Your task to perform on an android device: Turn off the flashlight Image 0: 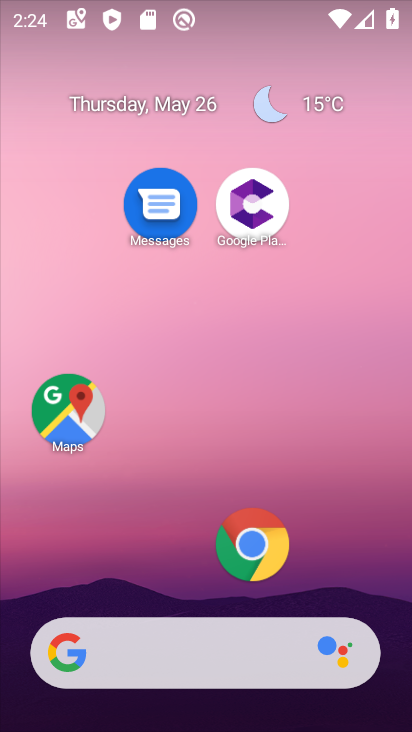
Step 0: drag from (133, 558) to (126, 242)
Your task to perform on an android device: Turn off the flashlight Image 1: 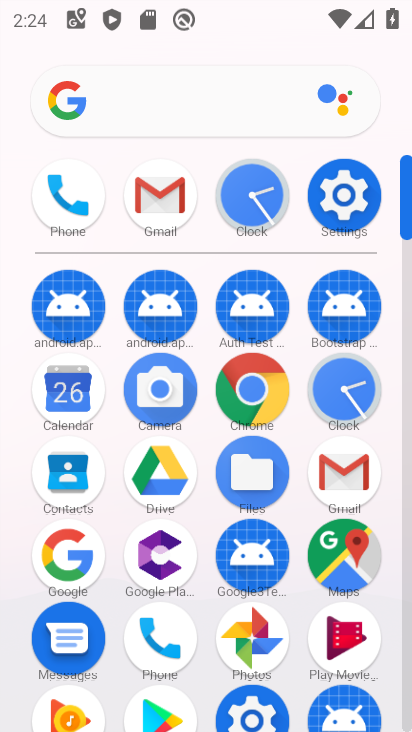
Step 1: click (336, 221)
Your task to perform on an android device: Turn off the flashlight Image 2: 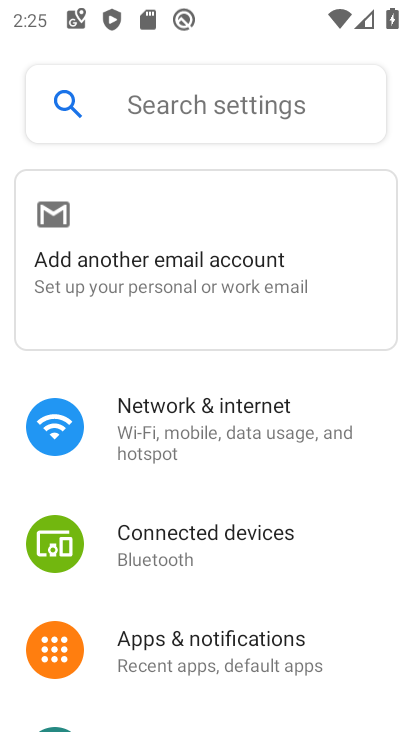
Step 2: task complete